Your task to perform on an android device: change the clock display to analog Image 0: 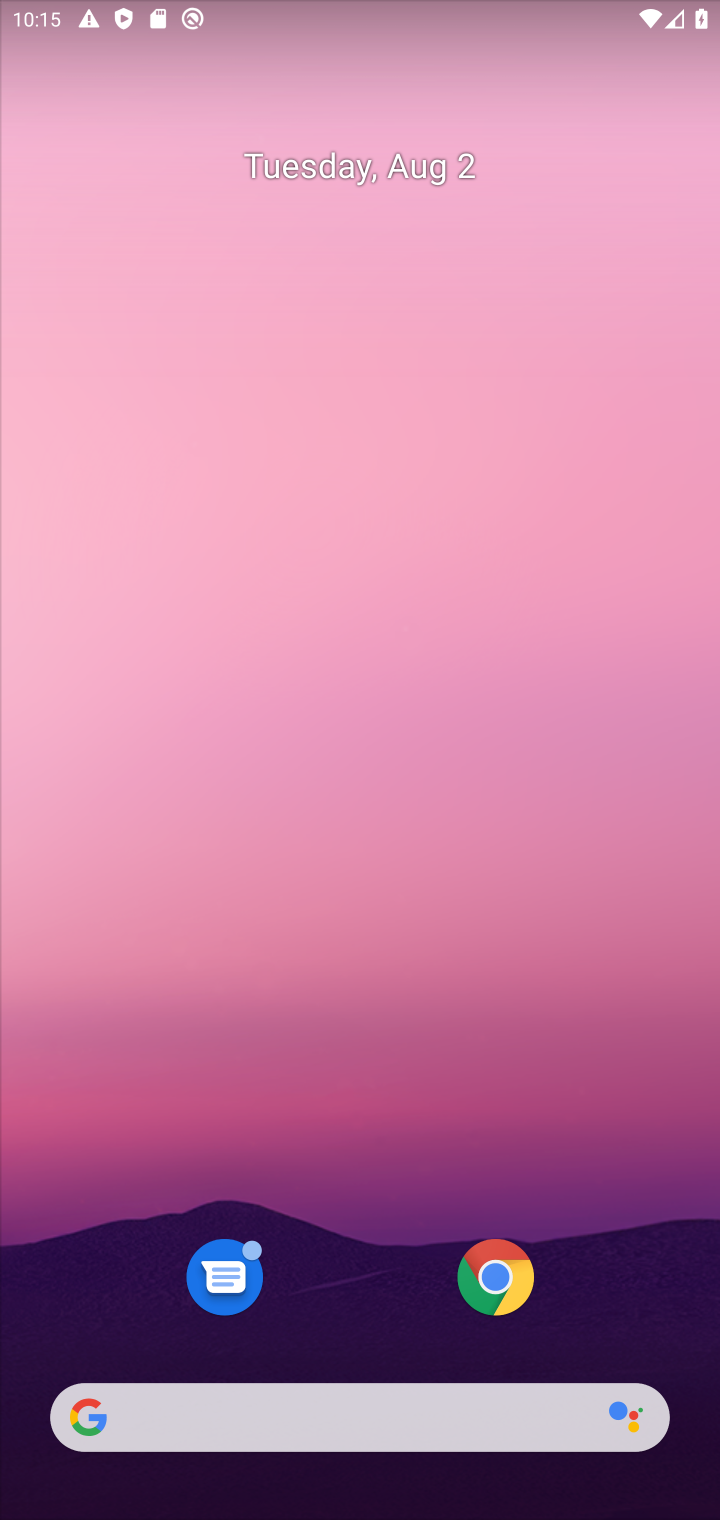
Step 0: press home button
Your task to perform on an android device: change the clock display to analog Image 1: 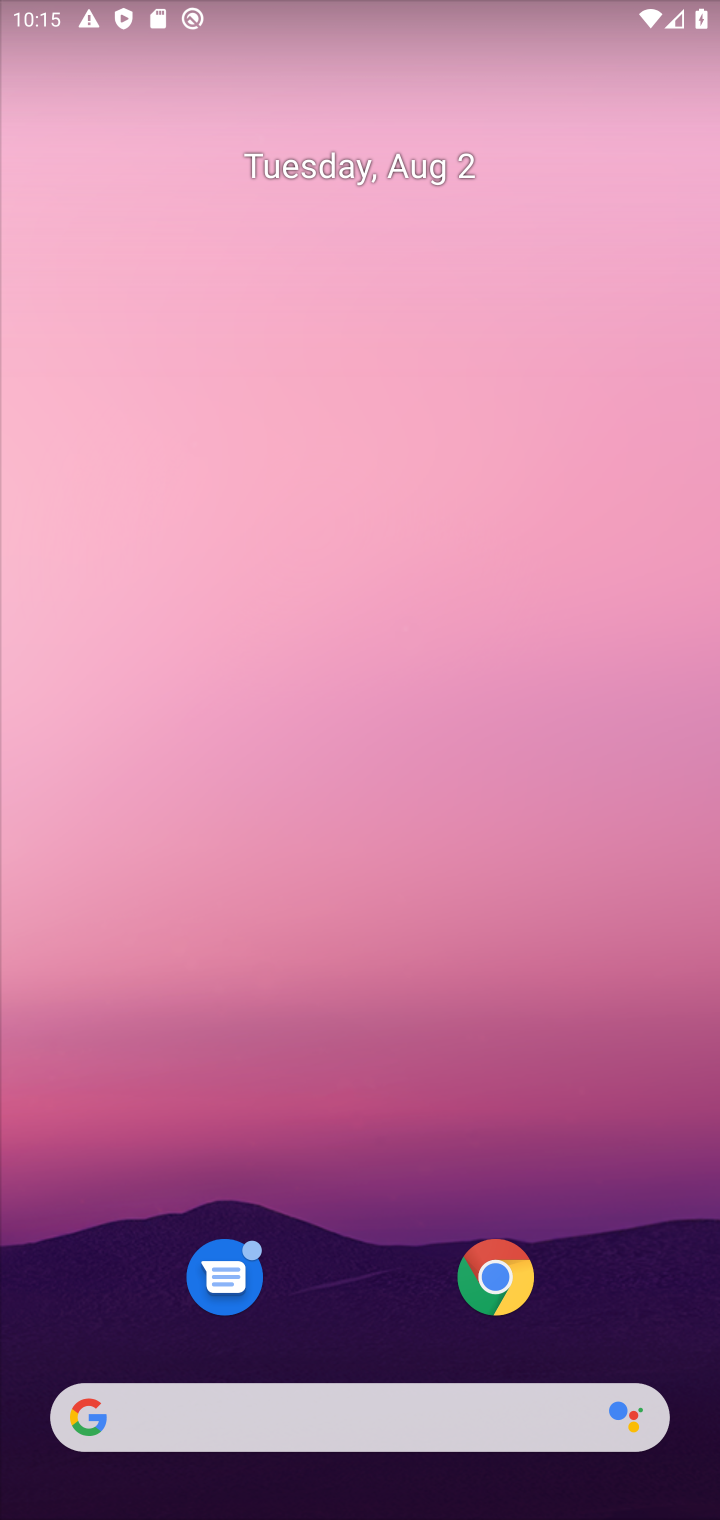
Step 1: press home button
Your task to perform on an android device: change the clock display to analog Image 2: 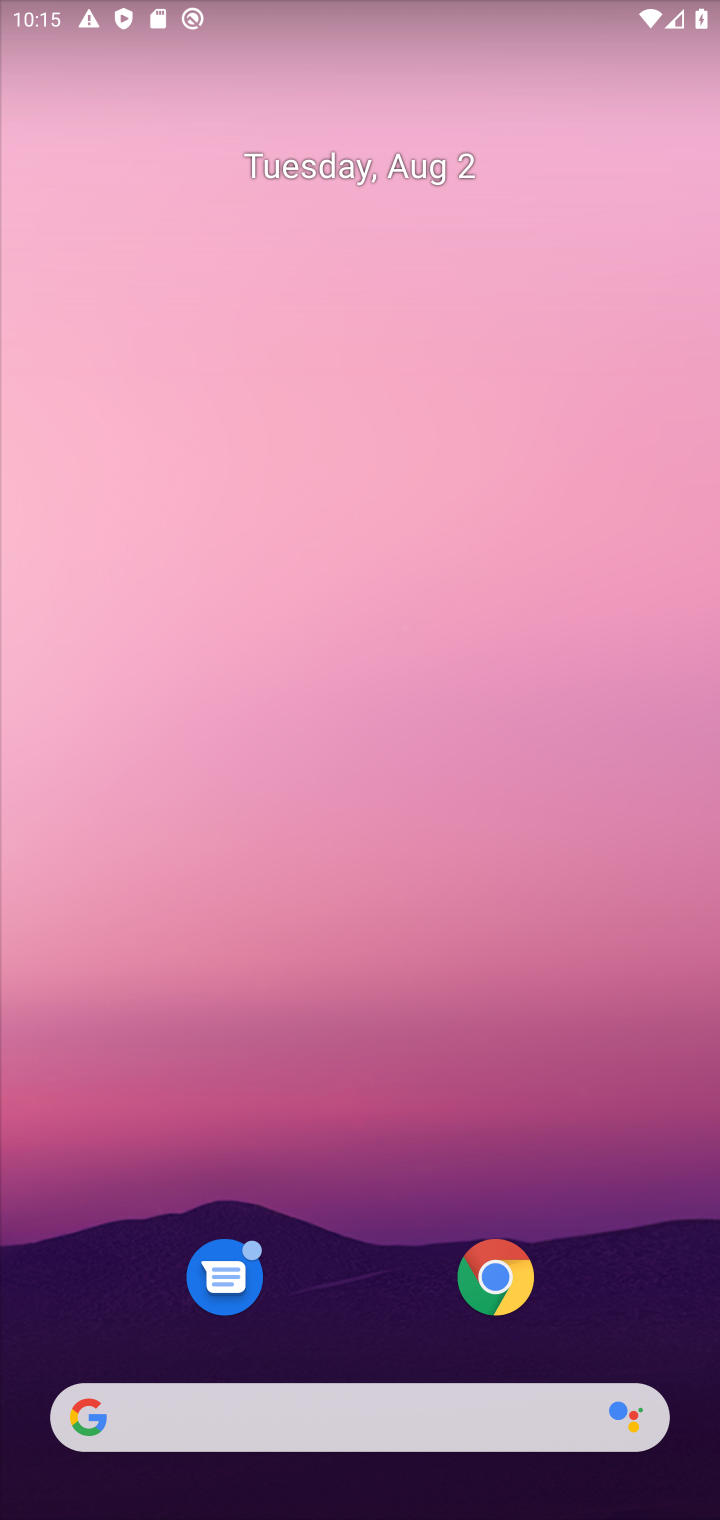
Step 2: drag from (419, 1319) to (439, 484)
Your task to perform on an android device: change the clock display to analog Image 3: 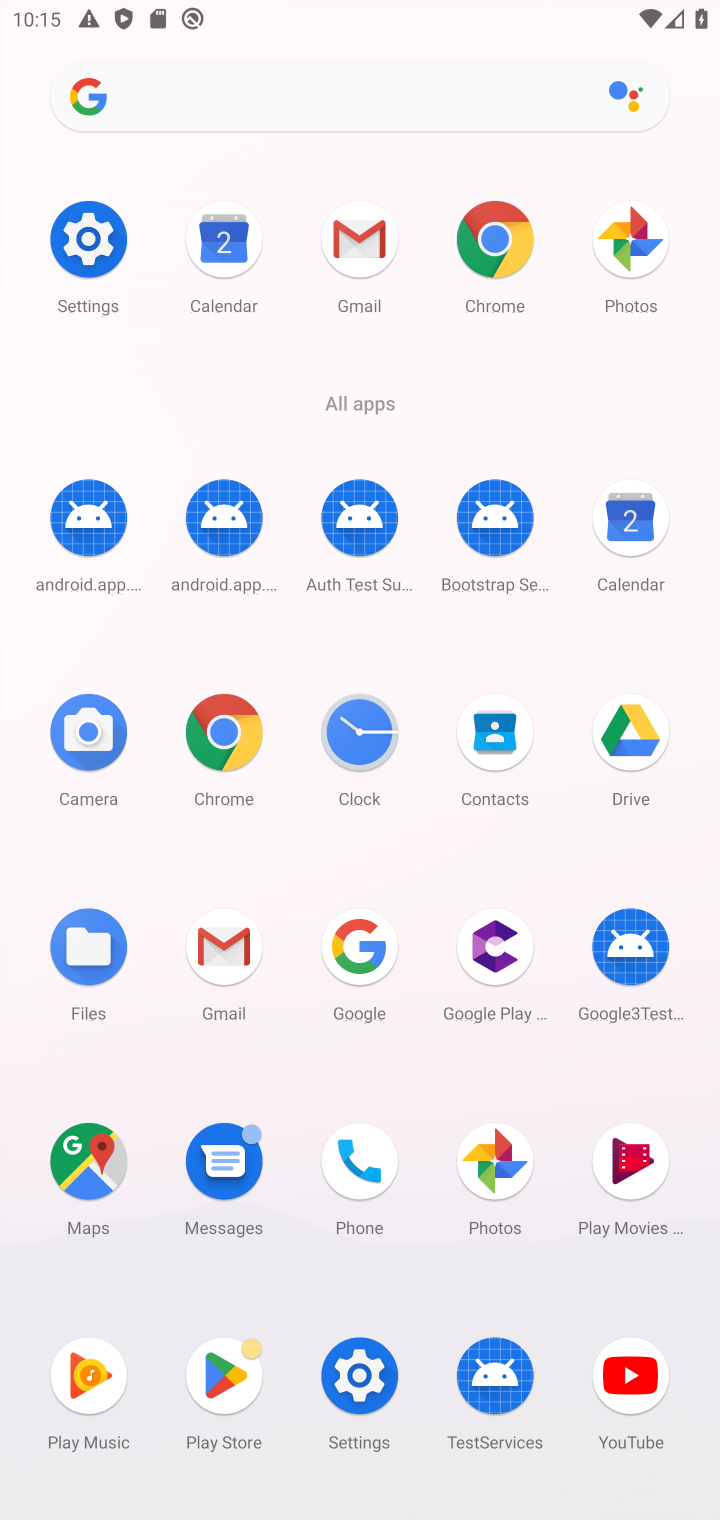
Step 3: click (344, 765)
Your task to perform on an android device: change the clock display to analog Image 4: 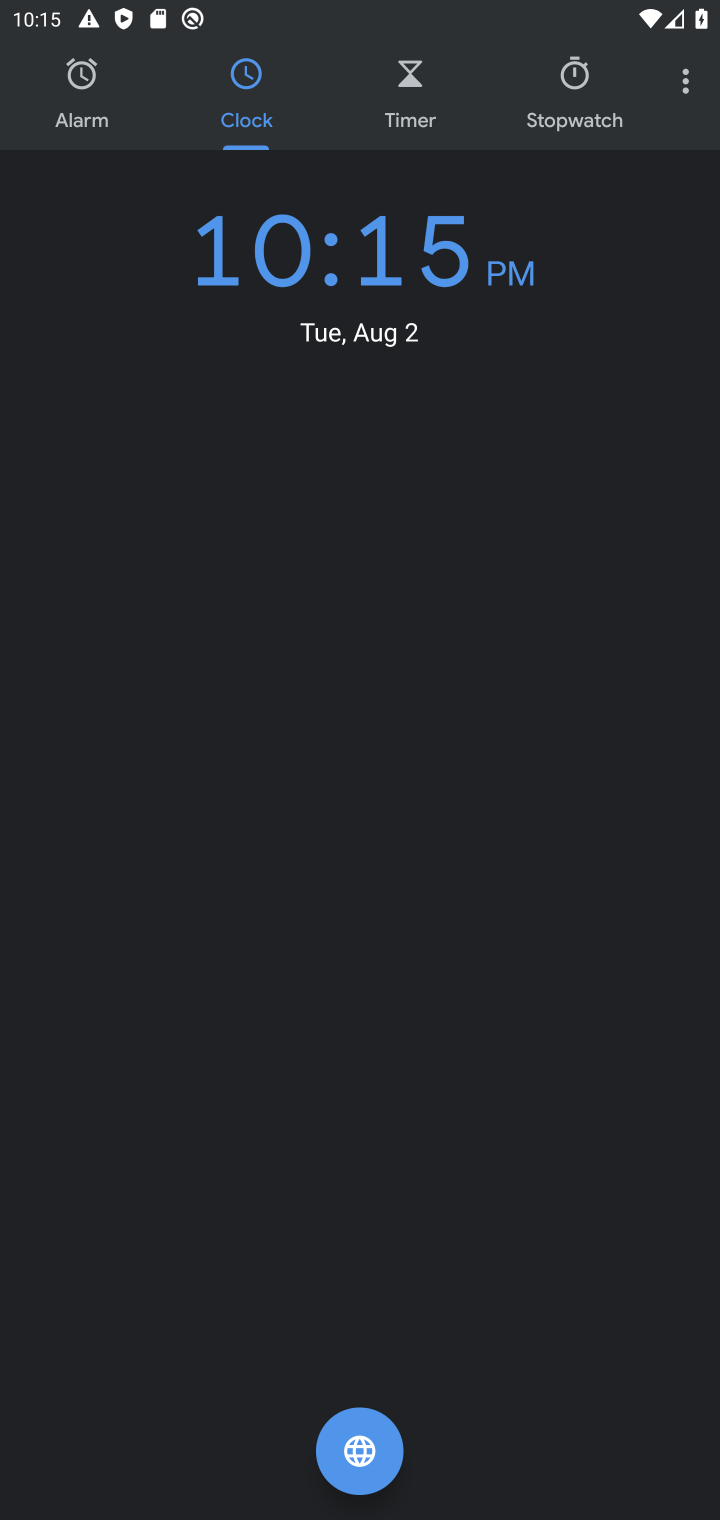
Step 4: click (689, 103)
Your task to perform on an android device: change the clock display to analog Image 5: 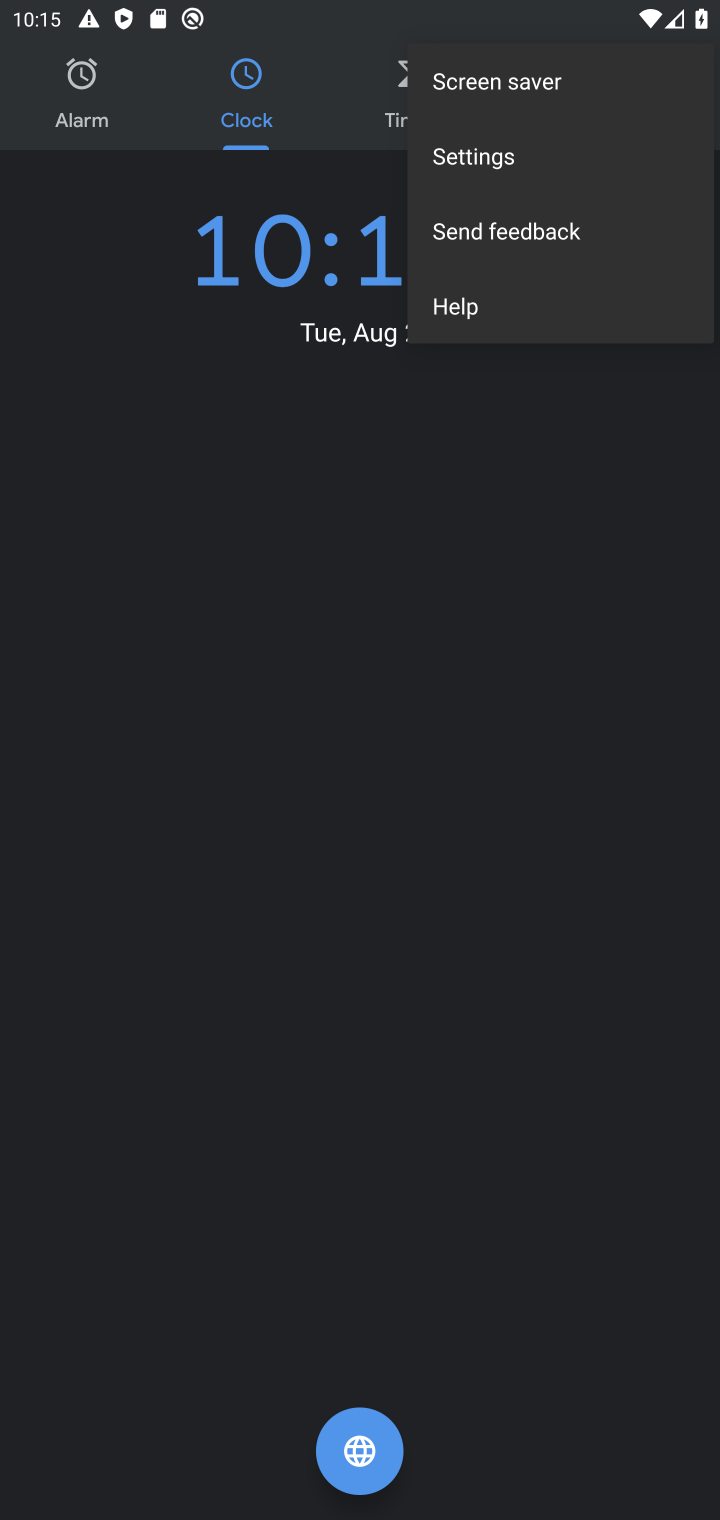
Step 5: click (467, 159)
Your task to perform on an android device: change the clock display to analog Image 6: 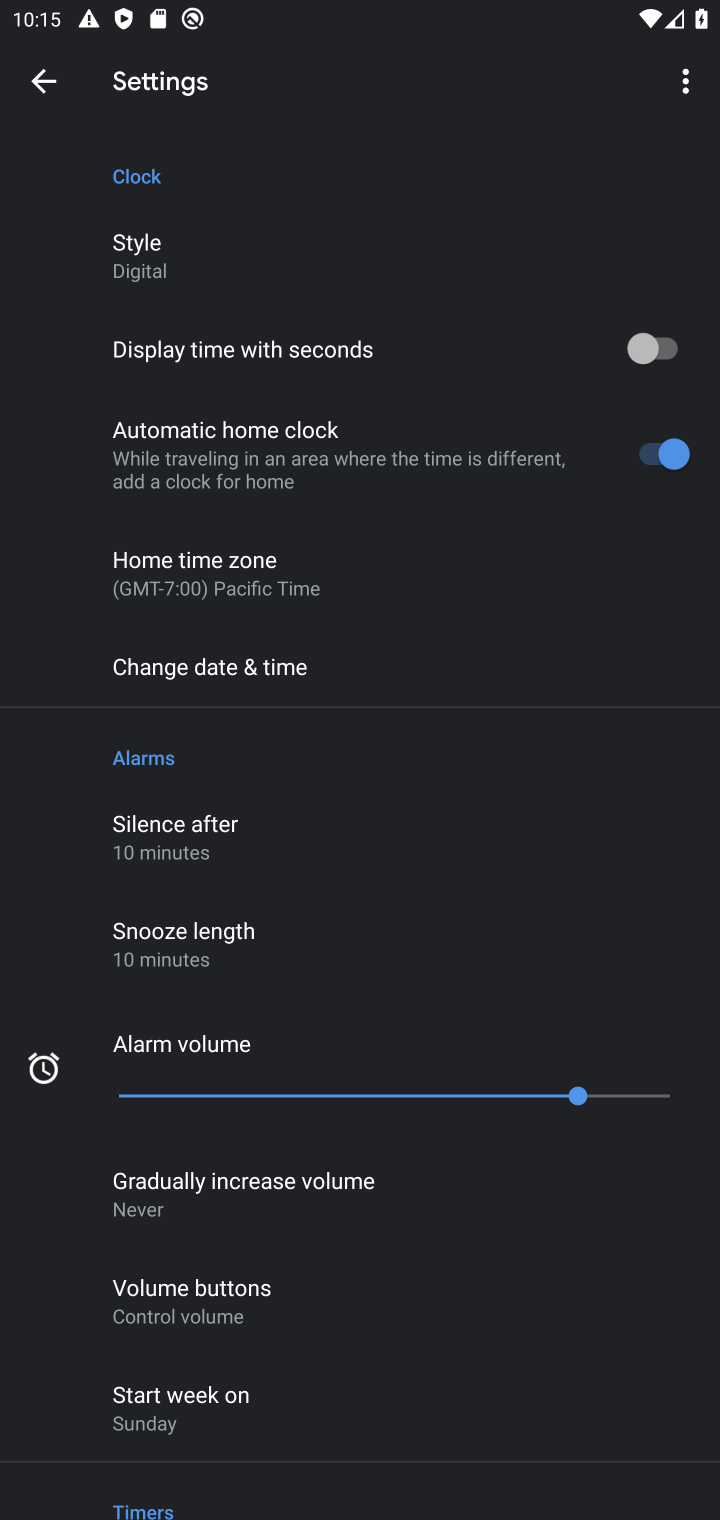
Step 6: click (137, 262)
Your task to perform on an android device: change the clock display to analog Image 7: 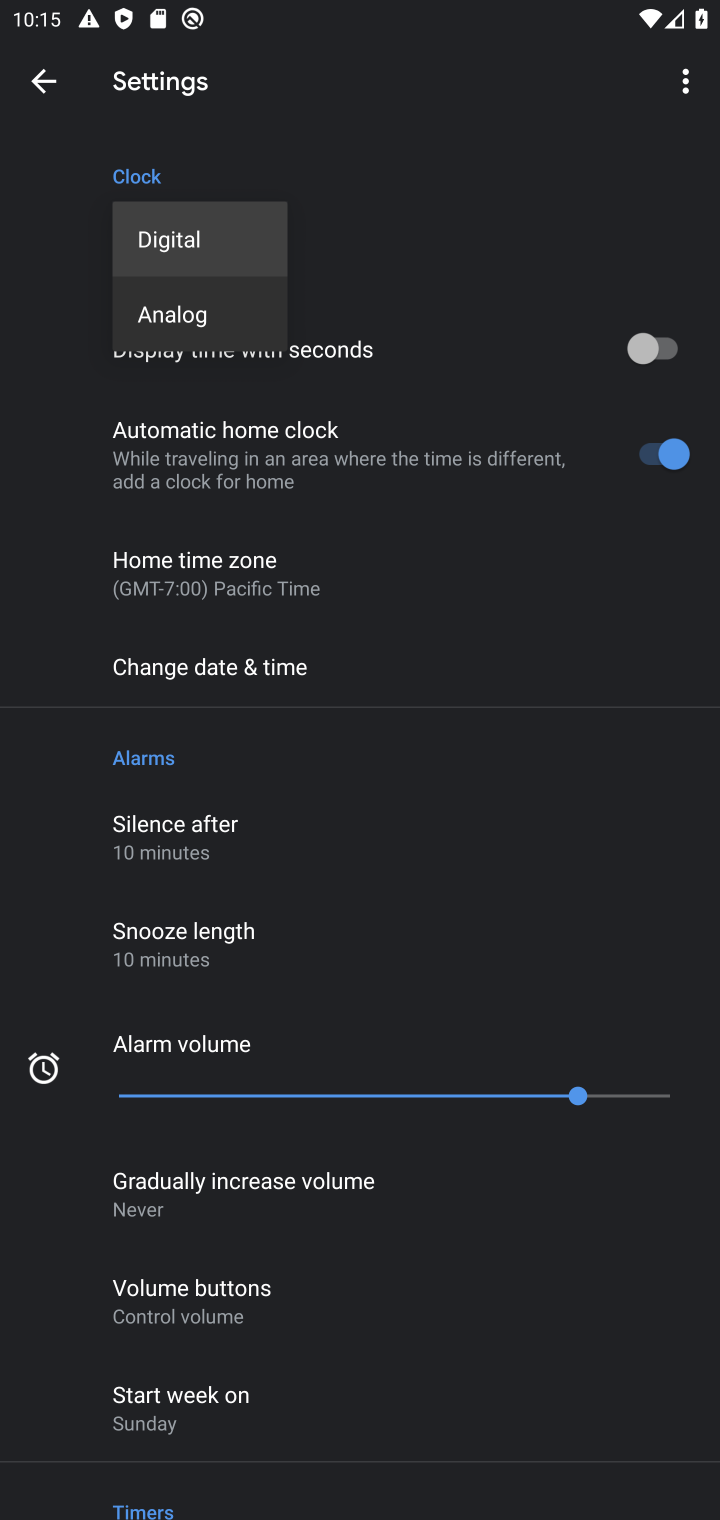
Step 7: click (143, 317)
Your task to perform on an android device: change the clock display to analog Image 8: 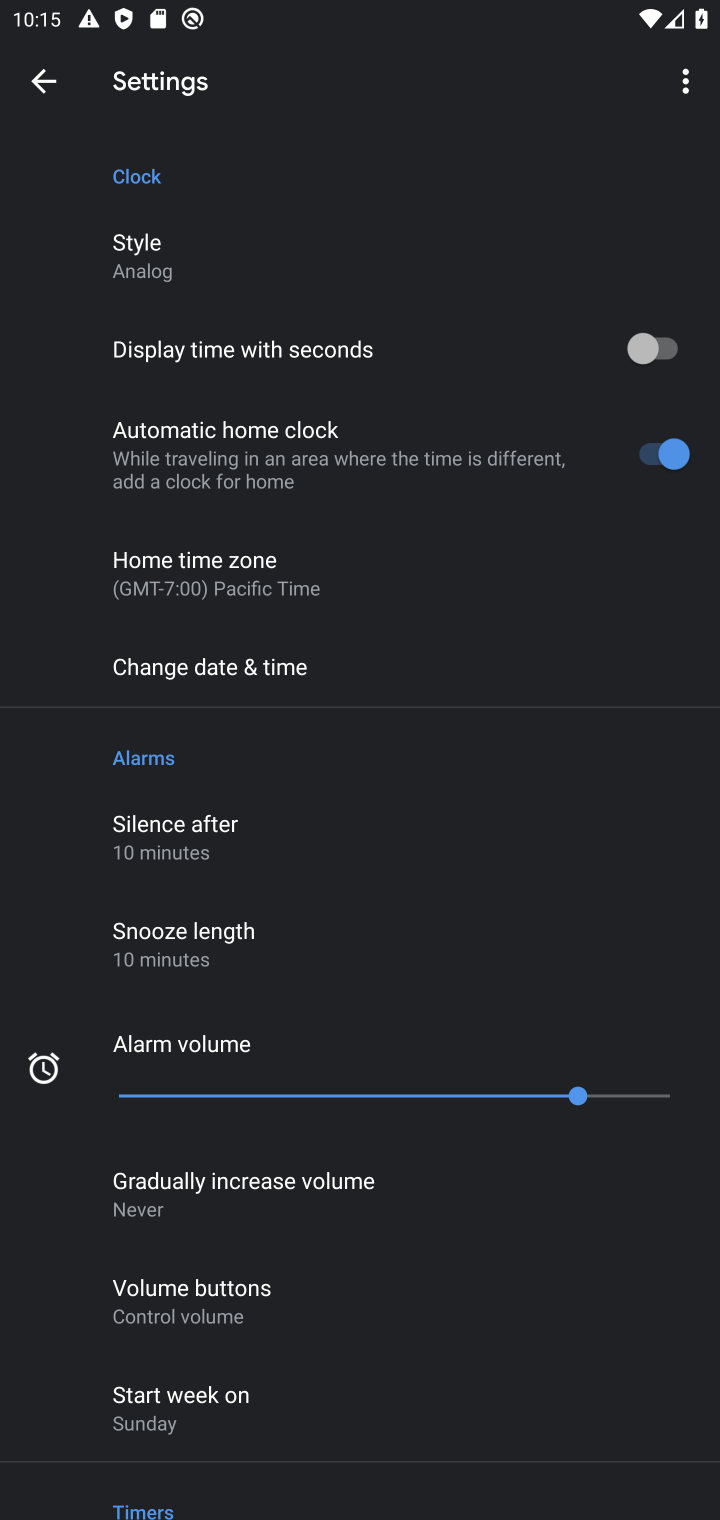
Step 8: click (143, 322)
Your task to perform on an android device: change the clock display to analog Image 9: 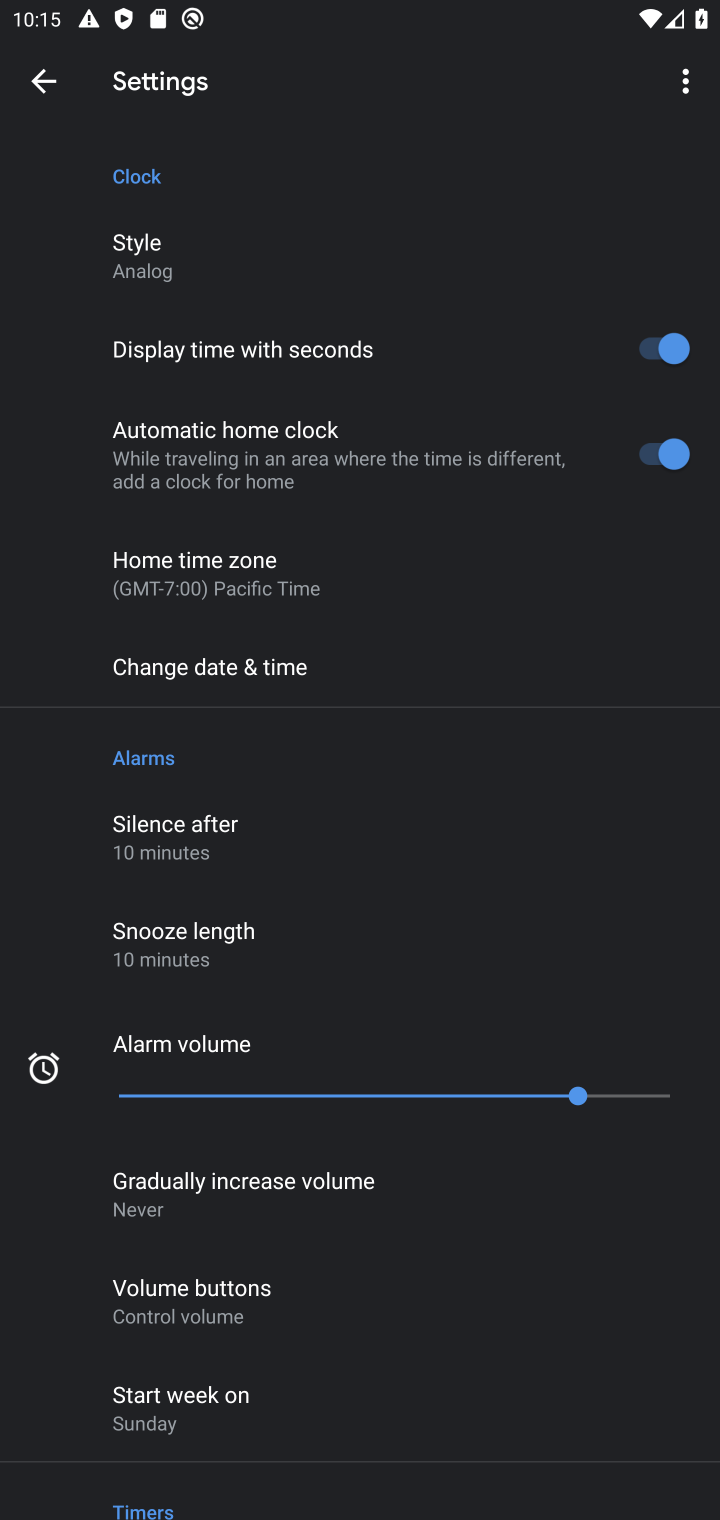
Step 9: task complete